Your task to perform on an android device: show emergency info Image 0: 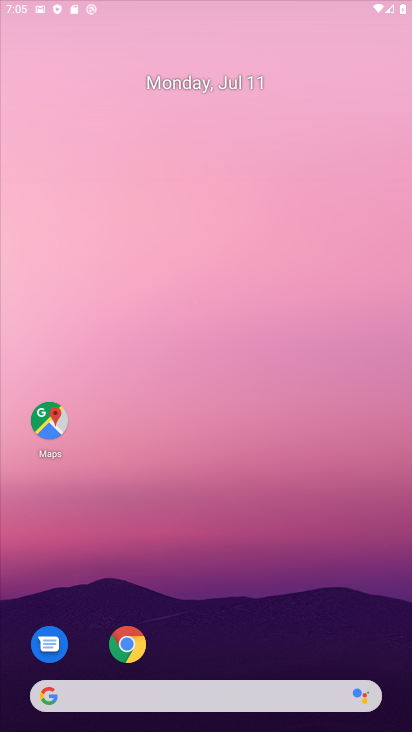
Step 0: drag from (251, 582) to (181, 85)
Your task to perform on an android device: show emergency info Image 1: 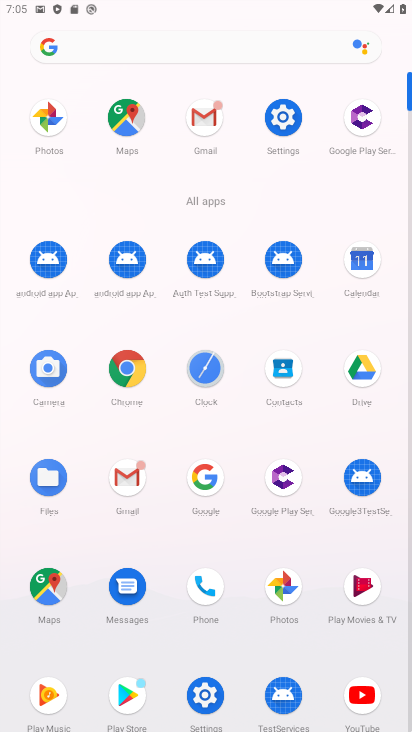
Step 1: click (280, 112)
Your task to perform on an android device: show emergency info Image 2: 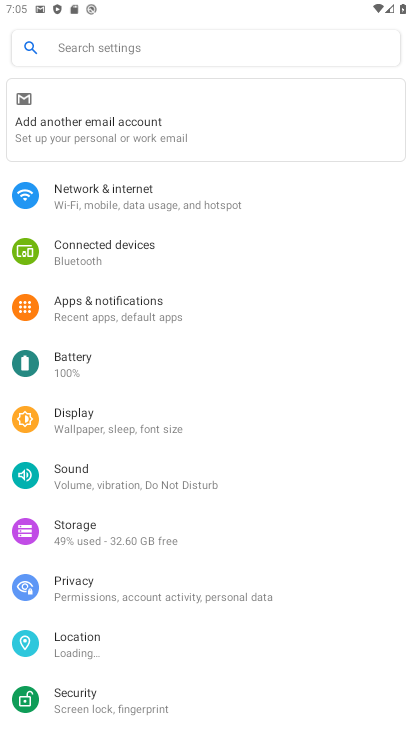
Step 2: drag from (246, 615) to (229, 110)
Your task to perform on an android device: show emergency info Image 3: 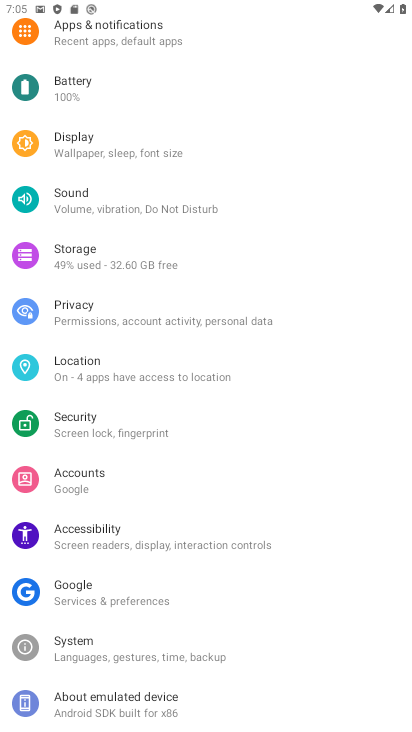
Step 3: click (71, 694)
Your task to perform on an android device: show emergency info Image 4: 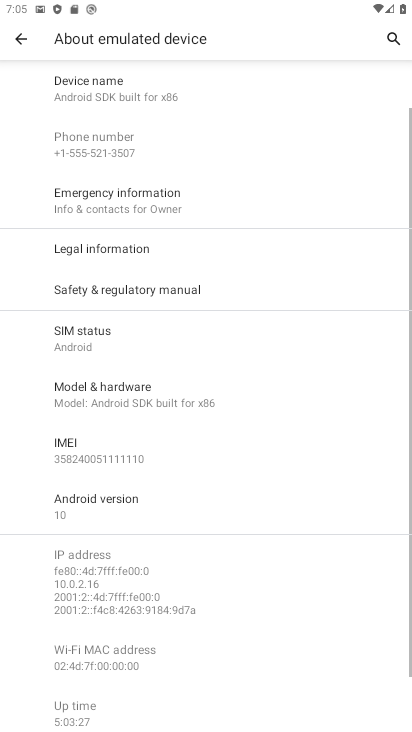
Step 4: click (120, 196)
Your task to perform on an android device: show emergency info Image 5: 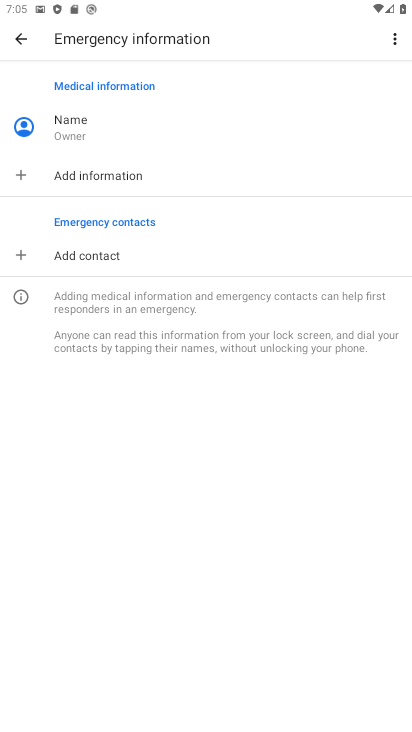
Step 5: task complete